Your task to perform on an android device: clear all cookies in the chrome app Image 0: 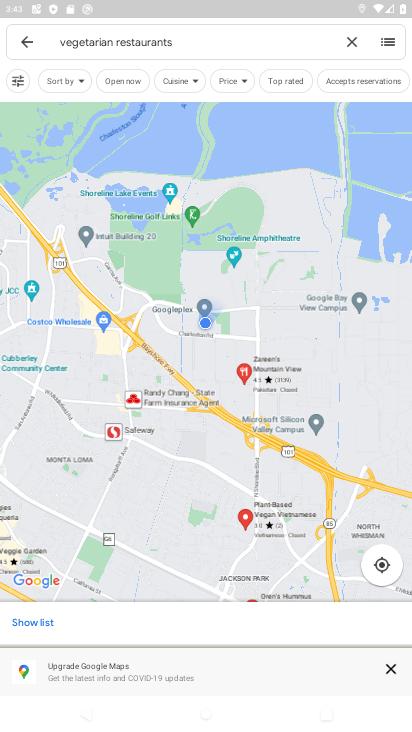
Step 0: click (347, 48)
Your task to perform on an android device: clear all cookies in the chrome app Image 1: 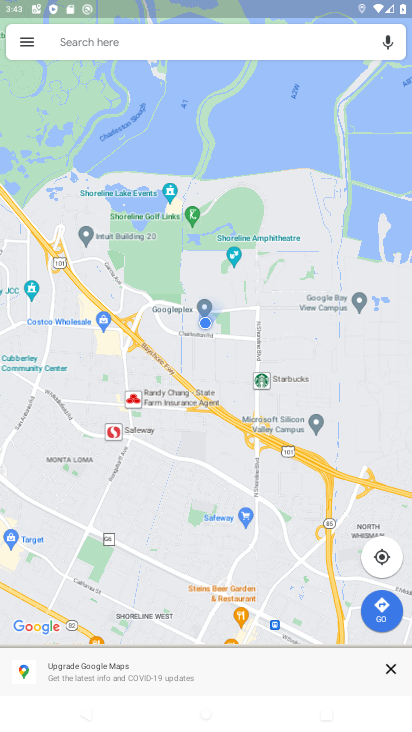
Step 1: task complete